Your task to perform on an android device: Go to sound settings Image 0: 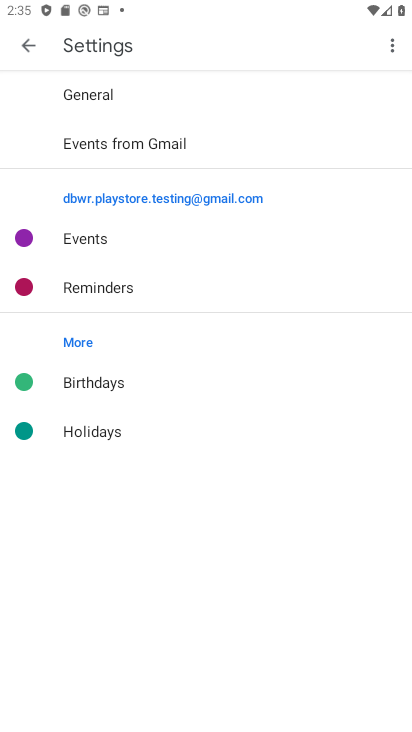
Step 0: press home button
Your task to perform on an android device: Go to sound settings Image 1: 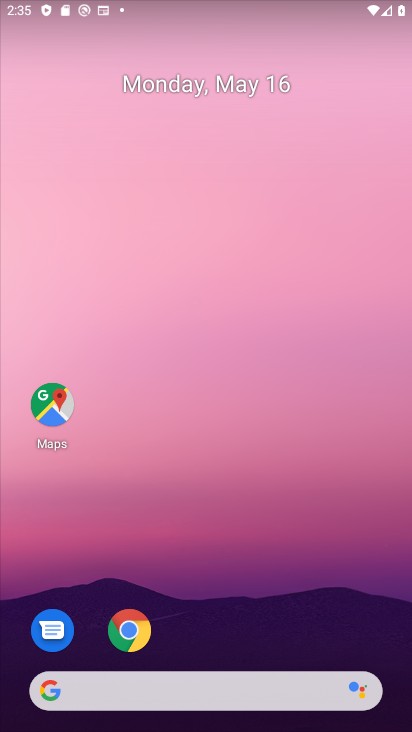
Step 1: drag from (222, 638) to (240, 138)
Your task to perform on an android device: Go to sound settings Image 2: 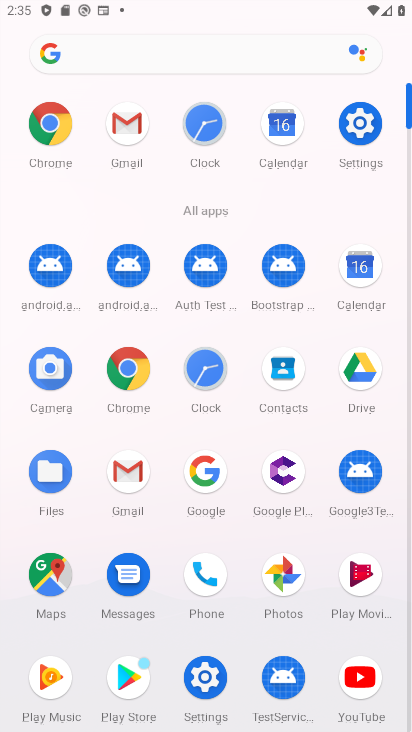
Step 2: click (356, 119)
Your task to perform on an android device: Go to sound settings Image 3: 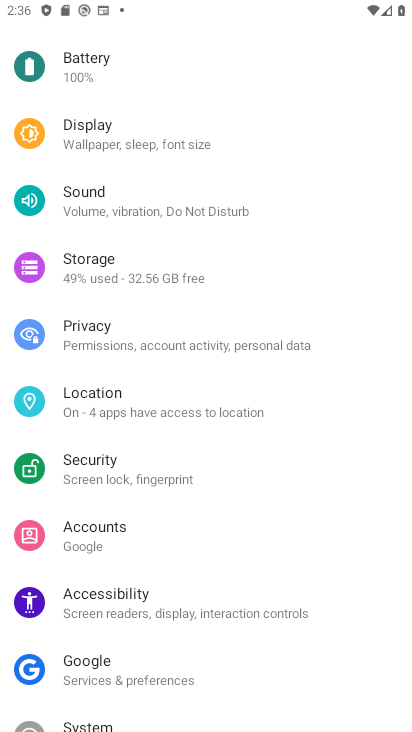
Step 3: click (119, 194)
Your task to perform on an android device: Go to sound settings Image 4: 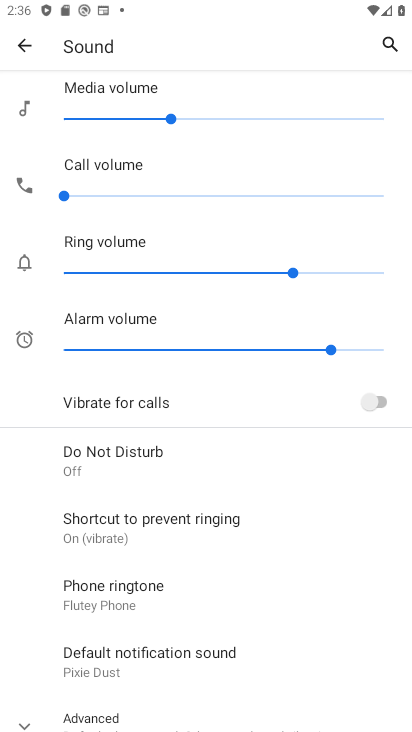
Step 4: task complete